Your task to perform on an android device: Open settings Image 0: 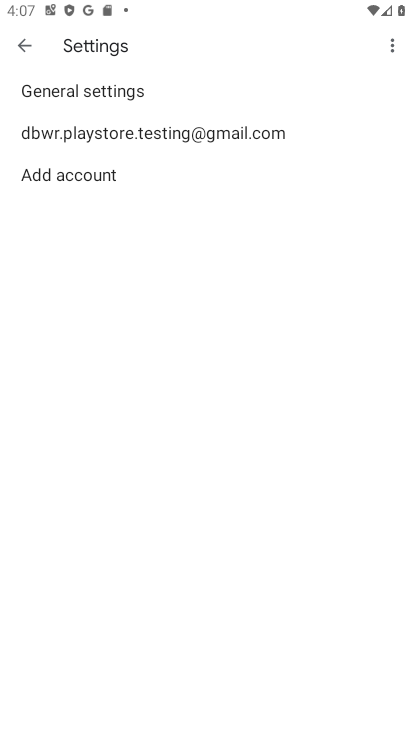
Step 0: press home button
Your task to perform on an android device: Open settings Image 1: 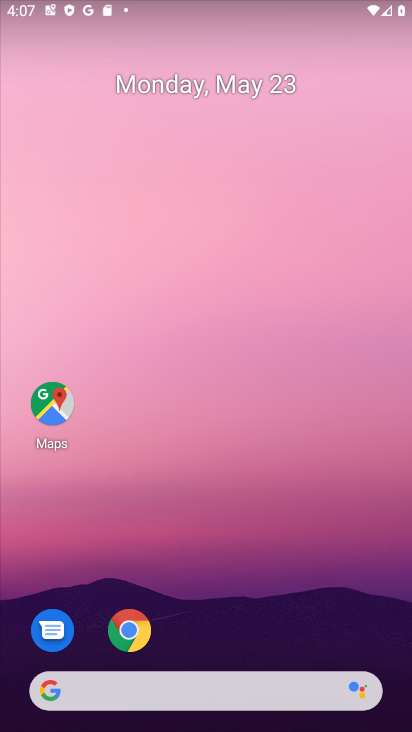
Step 1: drag from (211, 656) to (197, 234)
Your task to perform on an android device: Open settings Image 2: 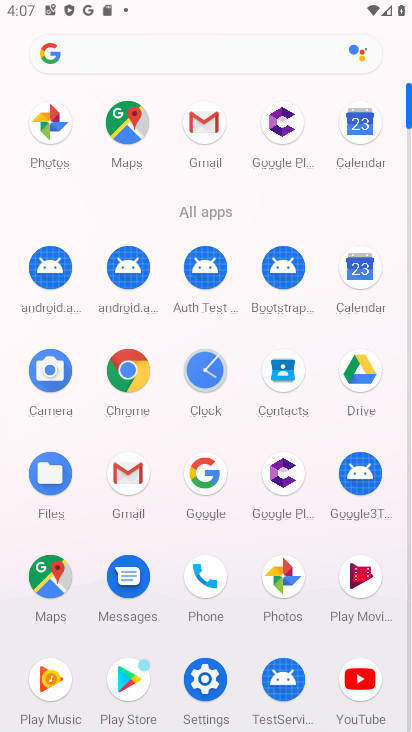
Step 2: click (203, 670)
Your task to perform on an android device: Open settings Image 3: 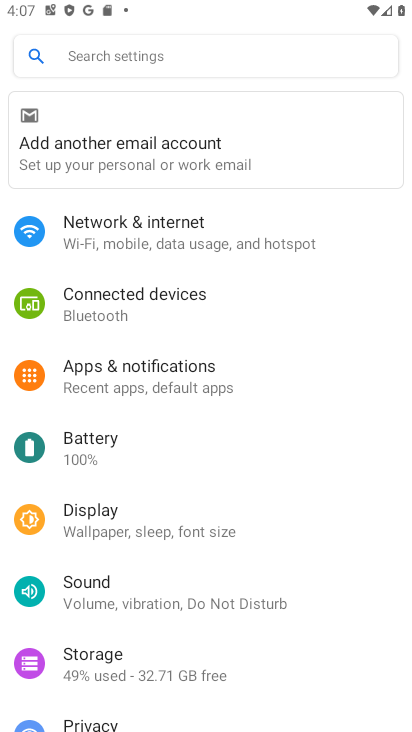
Step 3: task complete